Your task to perform on an android device: turn off picture-in-picture Image 0: 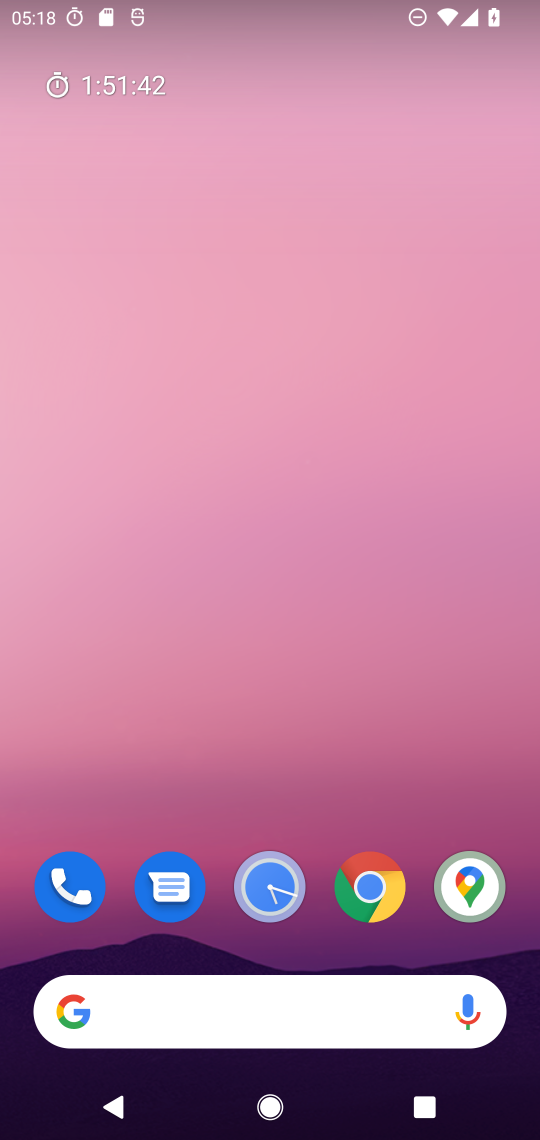
Step 0: press home button
Your task to perform on an android device: turn off picture-in-picture Image 1: 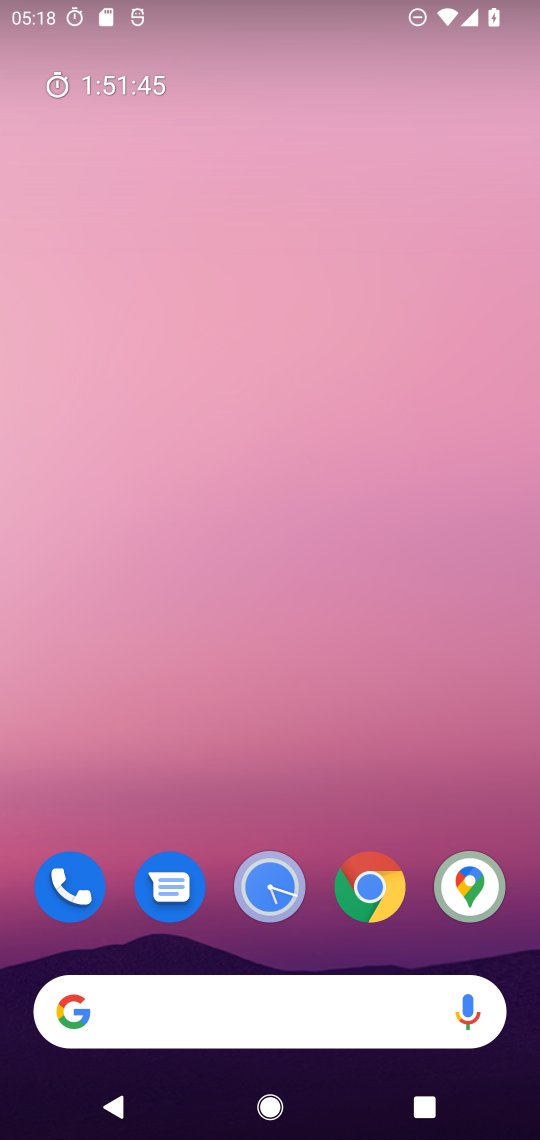
Step 1: drag from (383, 774) to (449, 280)
Your task to perform on an android device: turn off picture-in-picture Image 2: 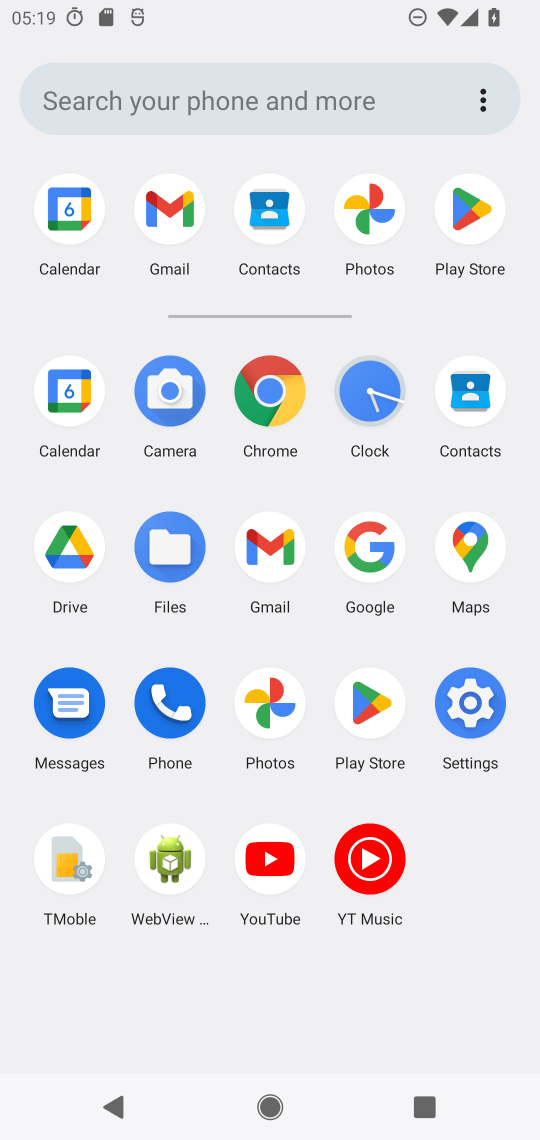
Step 2: click (463, 703)
Your task to perform on an android device: turn off picture-in-picture Image 3: 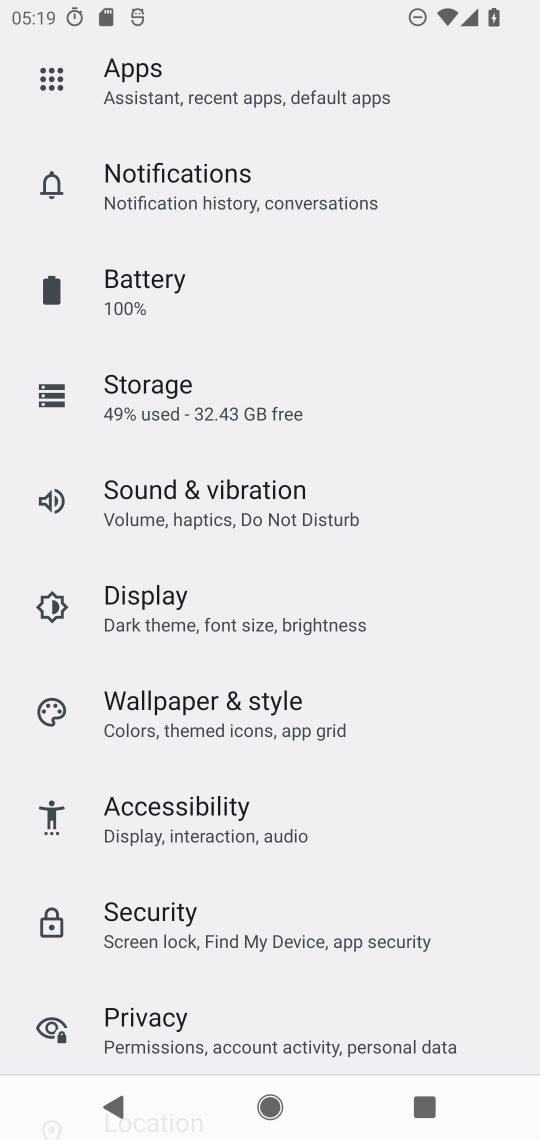
Step 3: drag from (433, 553) to (471, 709)
Your task to perform on an android device: turn off picture-in-picture Image 4: 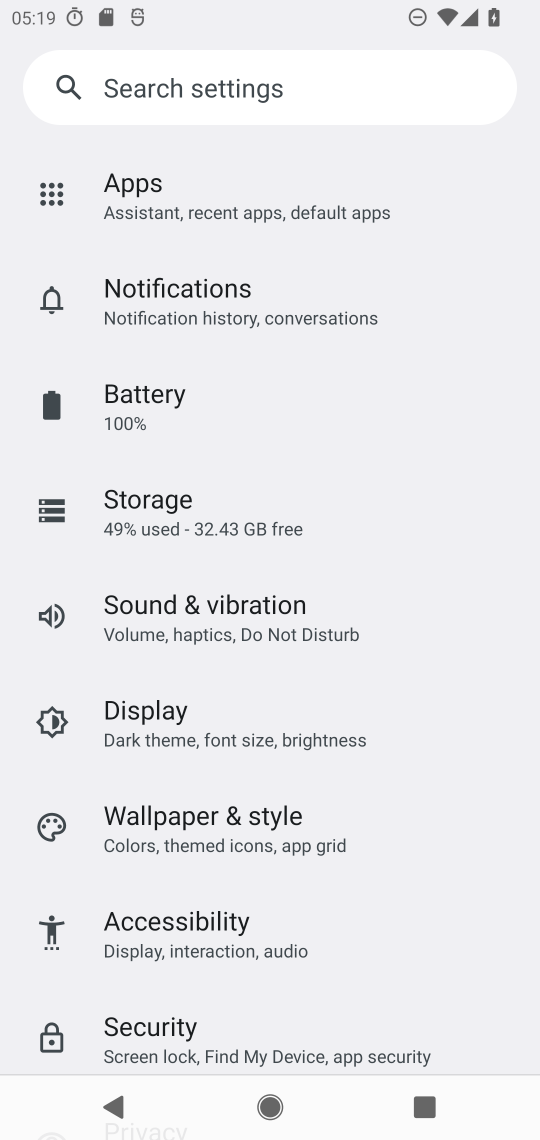
Step 4: drag from (471, 569) to (471, 675)
Your task to perform on an android device: turn off picture-in-picture Image 5: 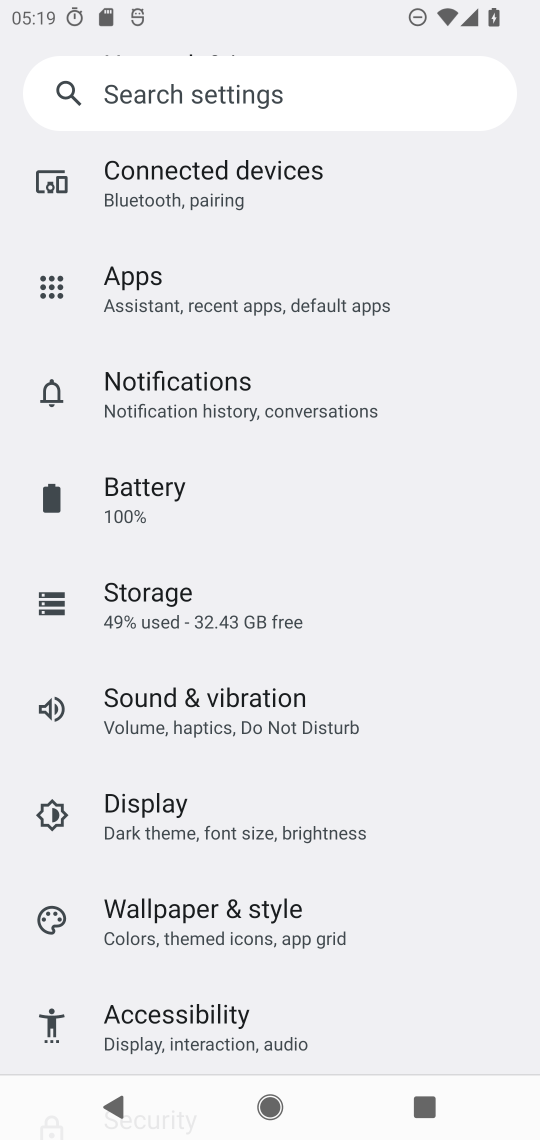
Step 5: drag from (455, 509) to (473, 671)
Your task to perform on an android device: turn off picture-in-picture Image 6: 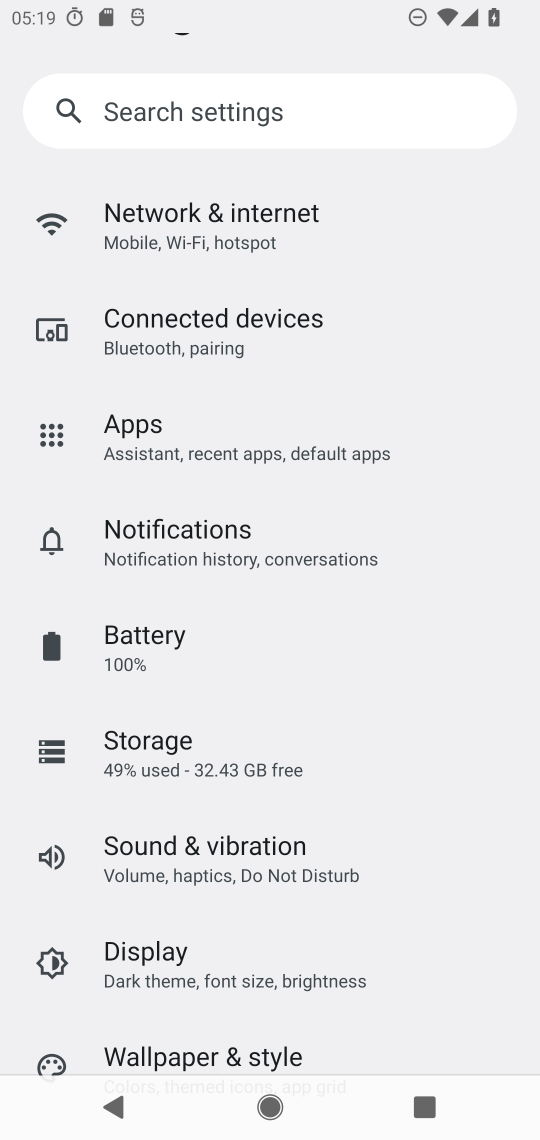
Step 6: drag from (491, 520) to (486, 644)
Your task to perform on an android device: turn off picture-in-picture Image 7: 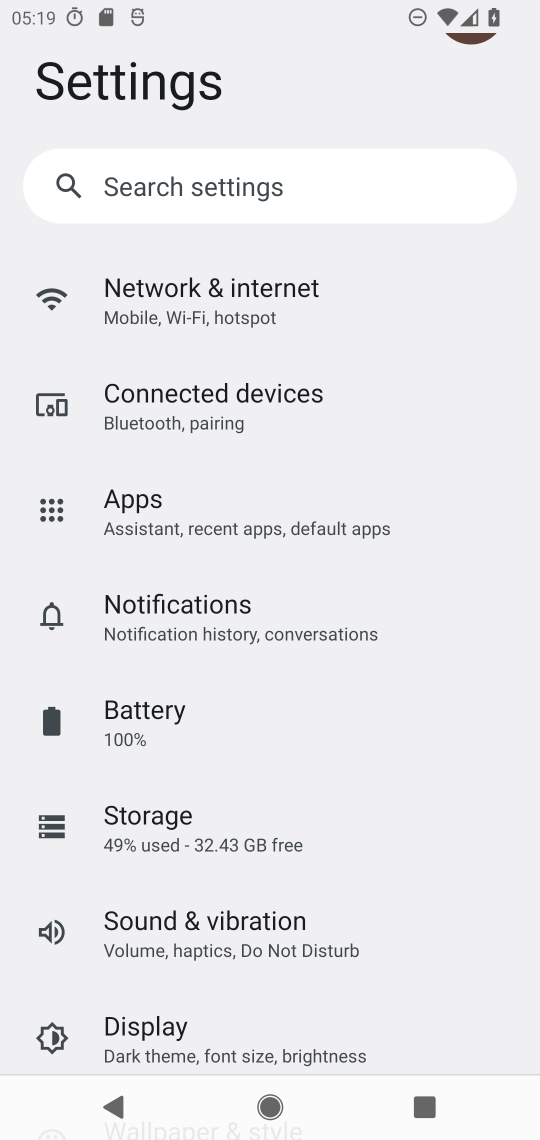
Step 7: drag from (476, 362) to (475, 702)
Your task to perform on an android device: turn off picture-in-picture Image 8: 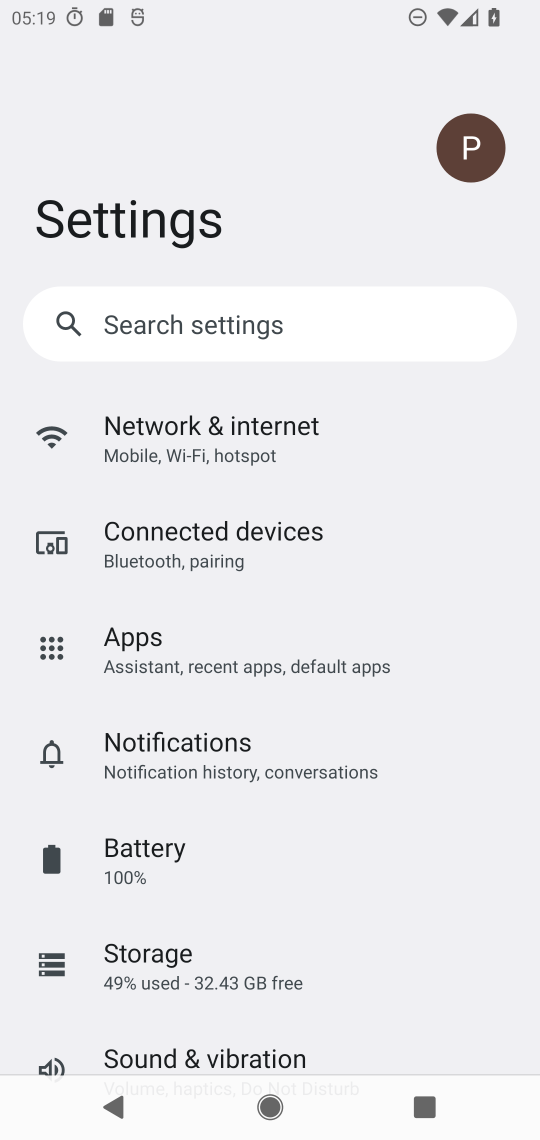
Step 8: click (380, 657)
Your task to perform on an android device: turn off picture-in-picture Image 9: 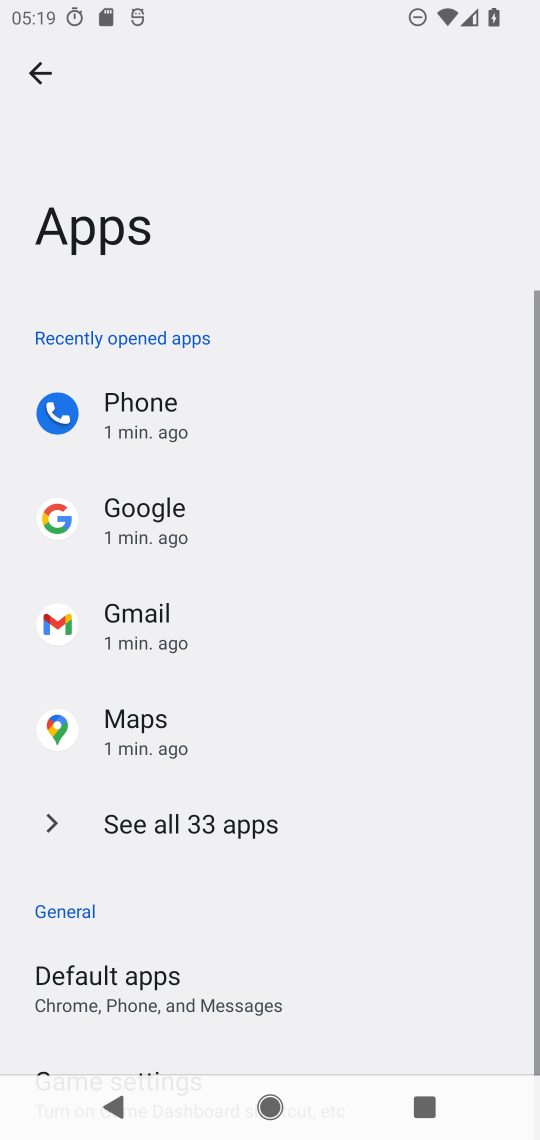
Step 9: drag from (387, 737) to (429, 593)
Your task to perform on an android device: turn off picture-in-picture Image 10: 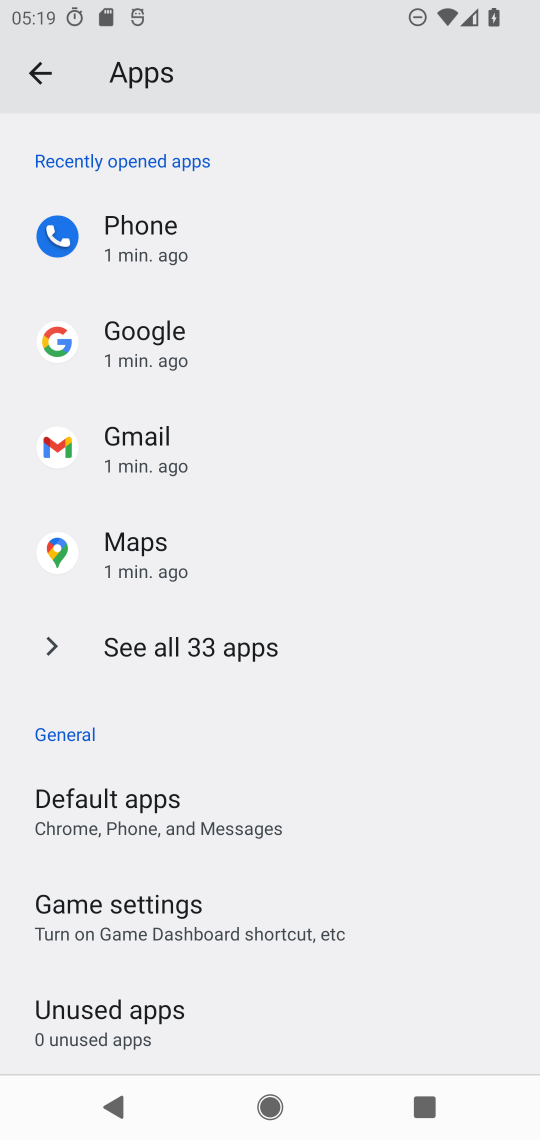
Step 10: drag from (422, 775) to (446, 560)
Your task to perform on an android device: turn off picture-in-picture Image 11: 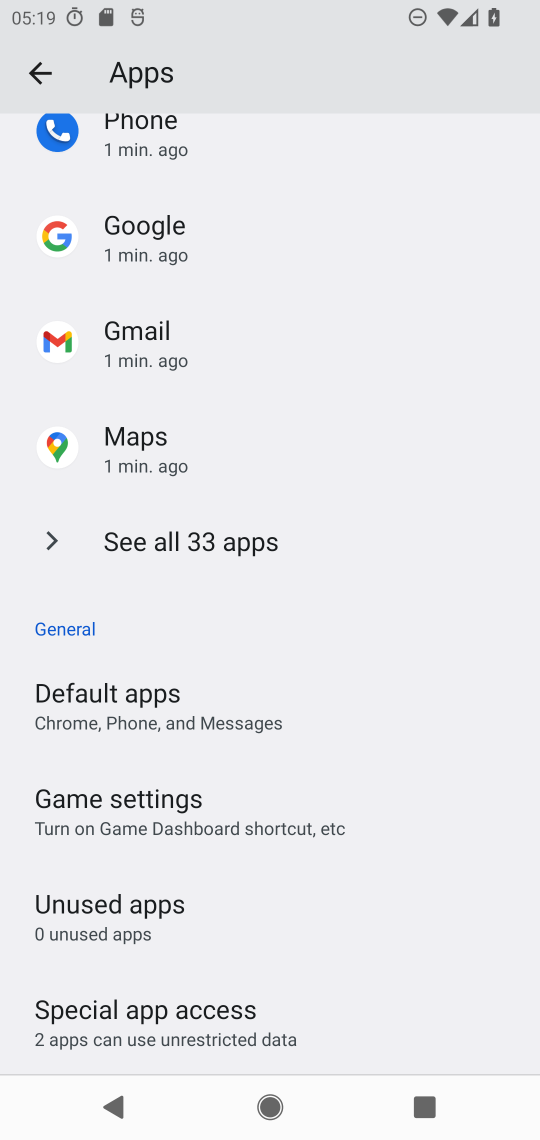
Step 11: click (364, 1026)
Your task to perform on an android device: turn off picture-in-picture Image 12: 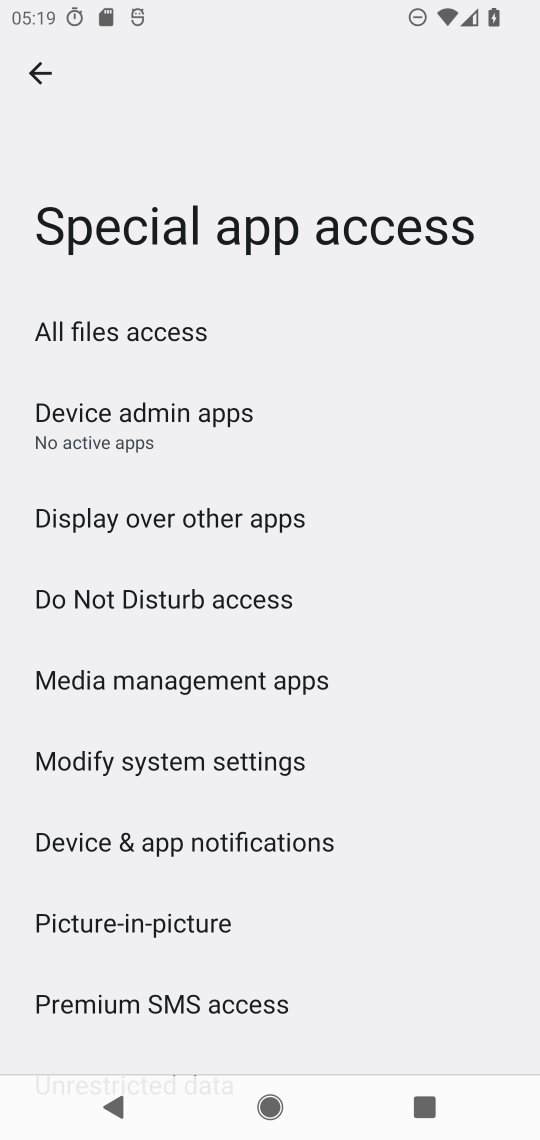
Step 12: drag from (398, 952) to (456, 590)
Your task to perform on an android device: turn off picture-in-picture Image 13: 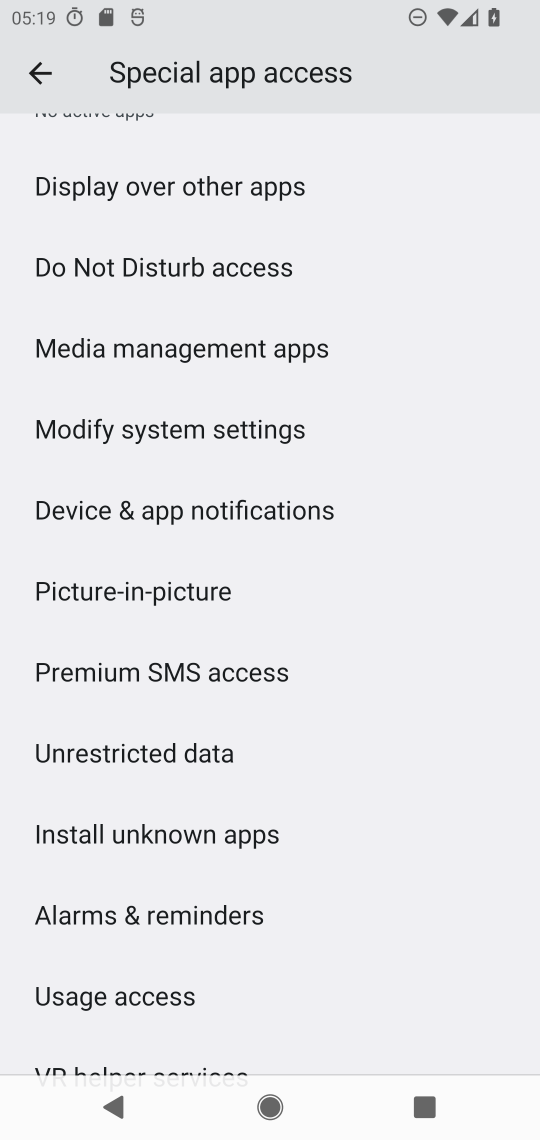
Step 13: click (236, 580)
Your task to perform on an android device: turn off picture-in-picture Image 14: 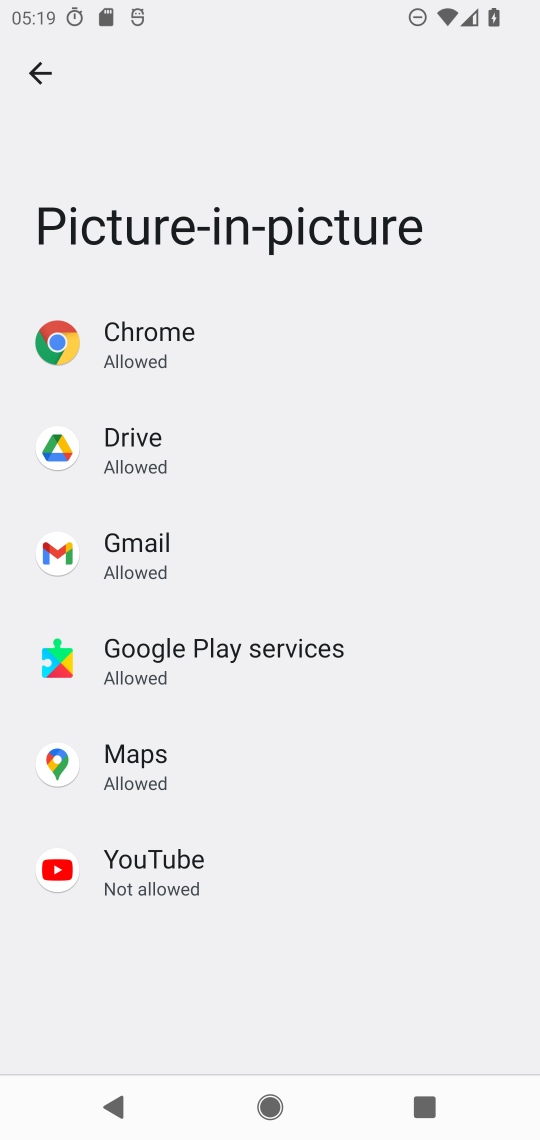
Step 14: click (172, 877)
Your task to perform on an android device: turn off picture-in-picture Image 15: 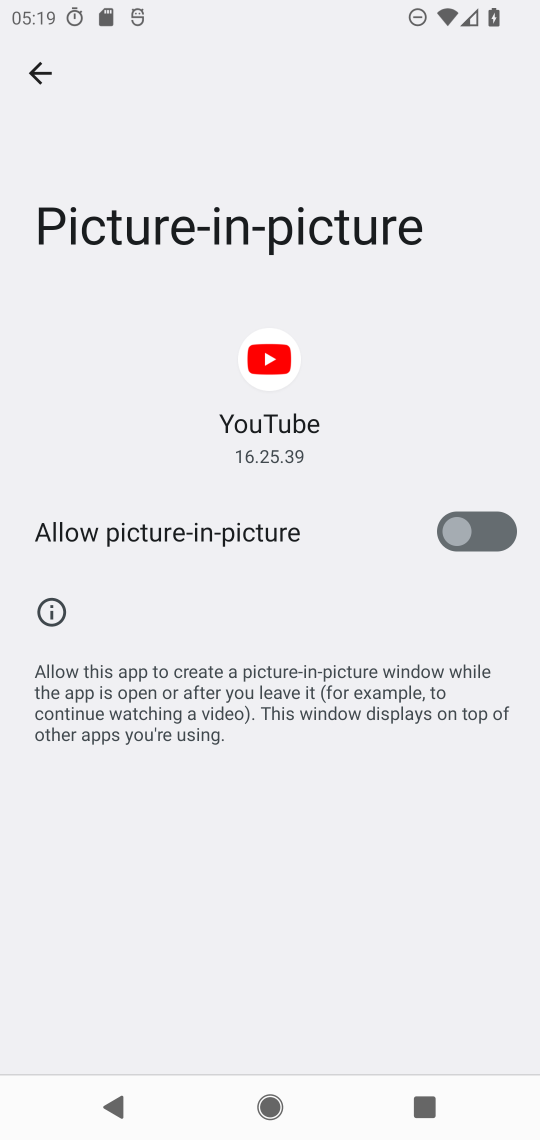
Step 15: task complete